Your task to perform on an android device: See recent photos Image 0: 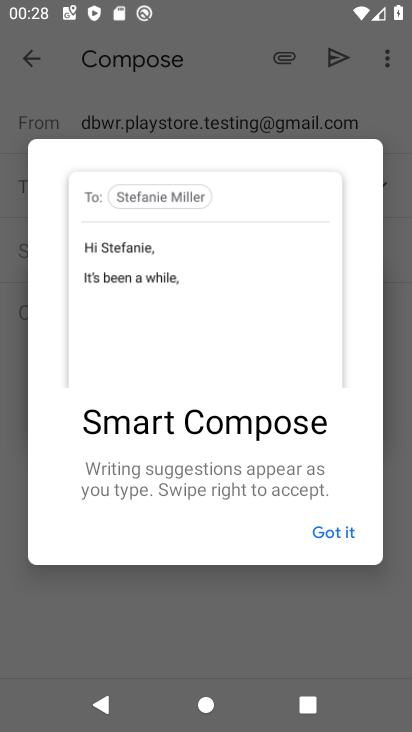
Step 0: press home button
Your task to perform on an android device: See recent photos Image 1: 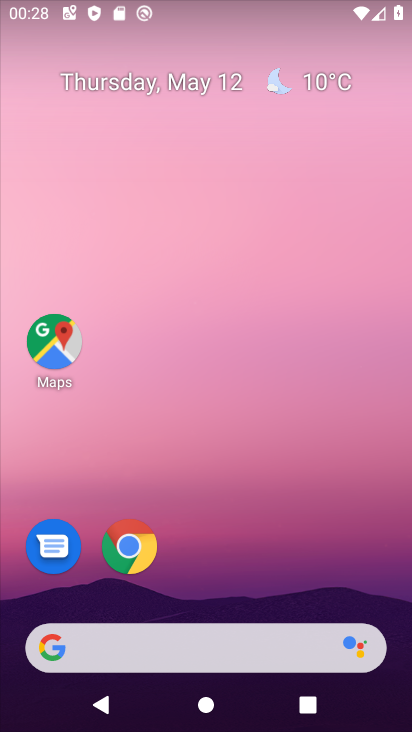
Step 1: drag from (134, 494) to (133, 189)
Your task to perform on an android device: See recent photos Image 2: 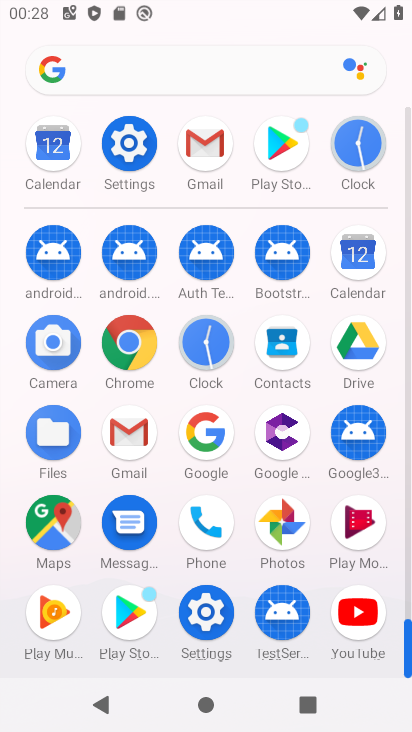
Step 2: click (290, 528)
Your task to perform on an android device: See recent photos Image 3: 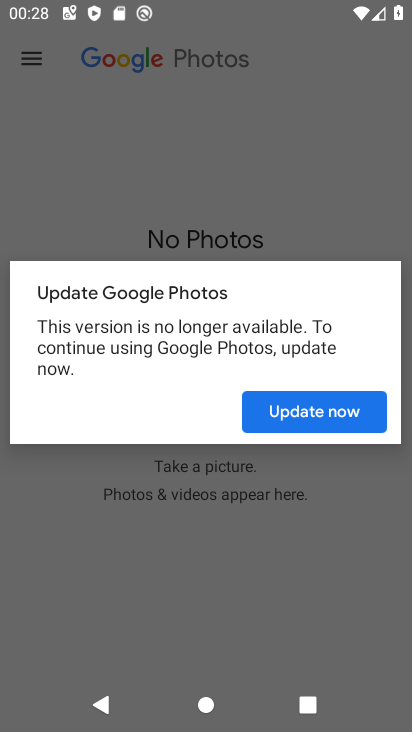
Step 3: click (287, 407)
Your task to perform on an android device: See recent photos Image 4: 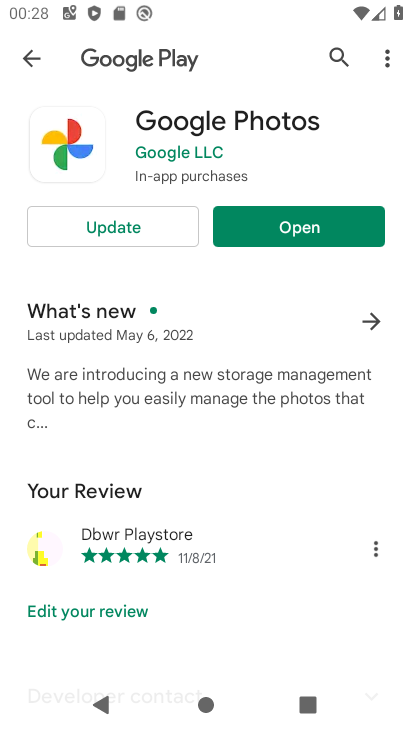
Step 4: click (124, 226)
Your task to perform on an android device: See recent photos Image 5: 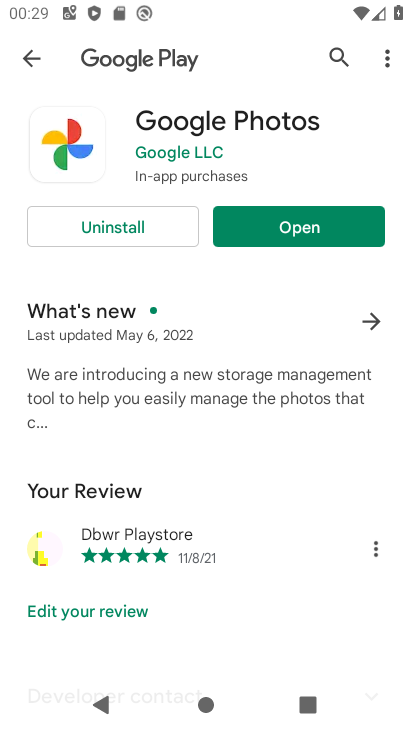
Step 5: click (302, 229)
Your task to perform on an android device: See recent photos Image 6: 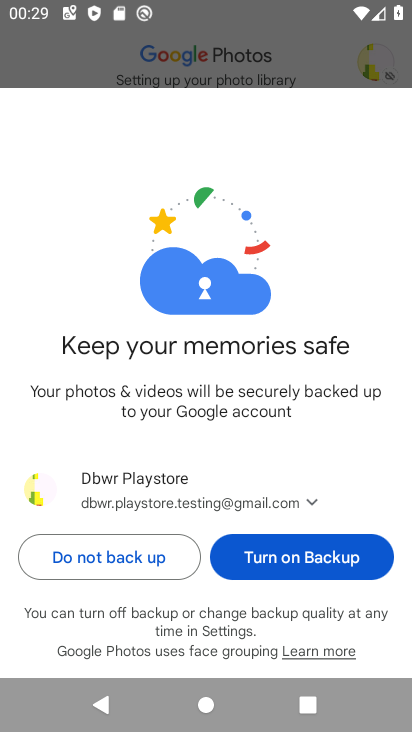
Step 6: click (139, 561)
Your task to perform on an android device: See recent photos Image 7: 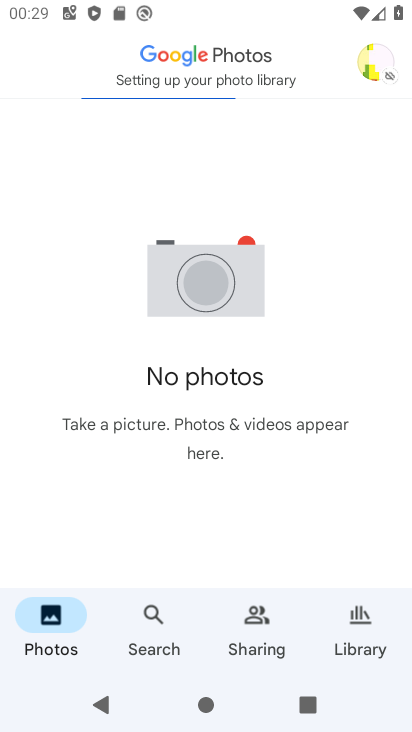
Step 7: task complete